Your task to perform on an android device: turn on javascript in the chrome app Image 0: 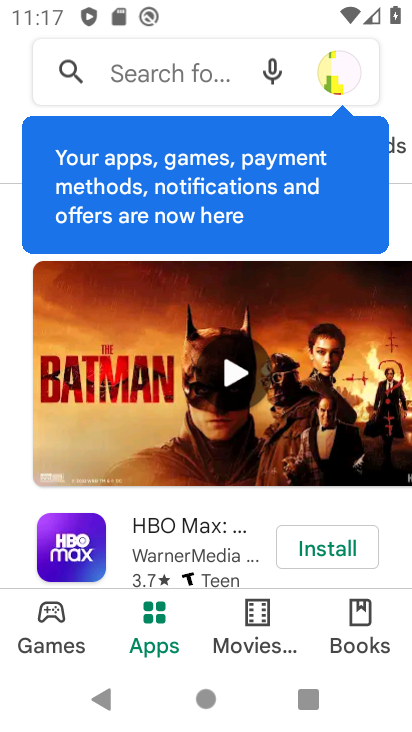
Step 0: press home button
Your task to perform on an android device: turn on javascript in the chrome app Image 1: 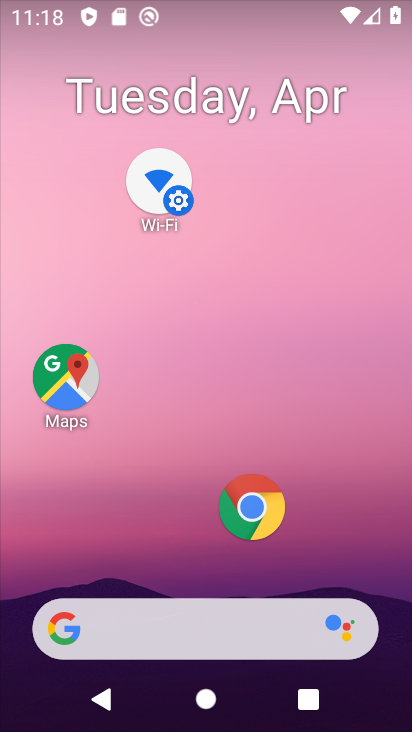
Step 1: click (238, 502)
Your task to perform on an android device: turn on javascript in the chrome app Image 2: 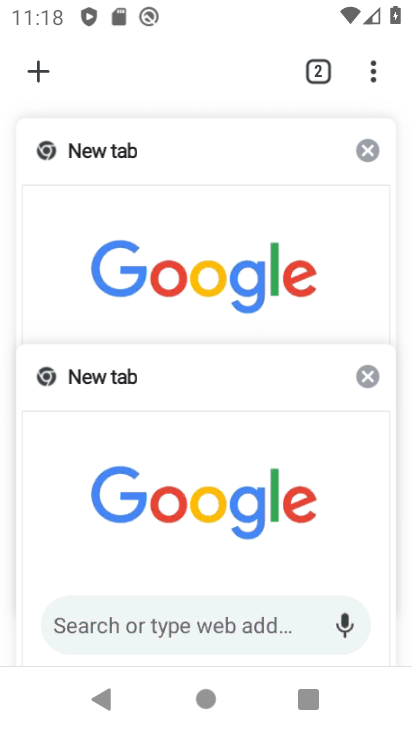
Step 2: click (371, 70)
Your task to perform on an android device: turn on javascript in the chrome app Image 3: 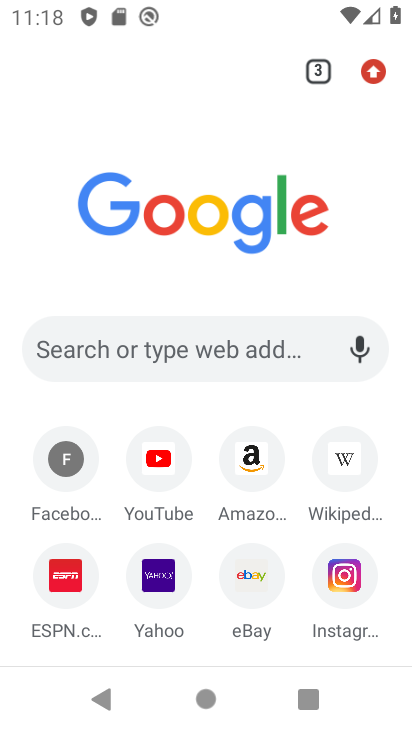
Step 3: click (370, 71)
Your task to perform on an android device: turn on javascript in the chrome app Image 4: 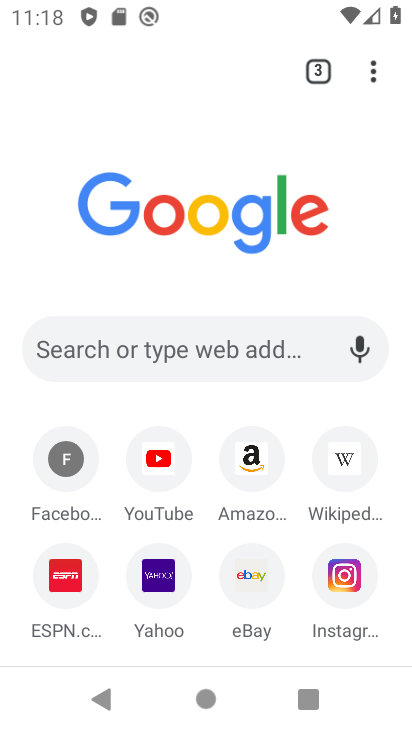
Step 4: click (313, 71)
Your task to perform on an android device: turn on javascript in the chrome app Image 5: 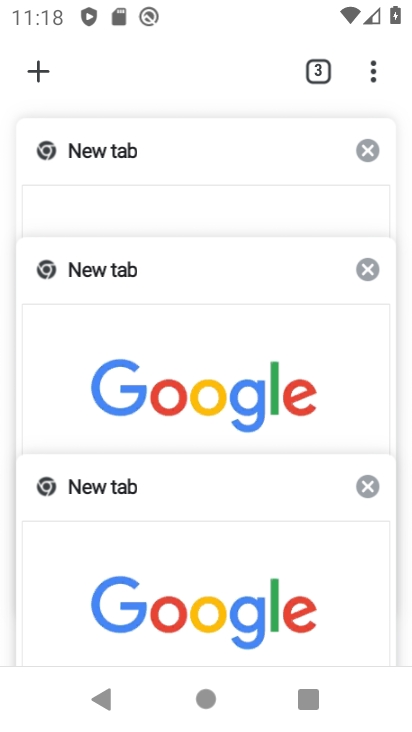
Step 5: click (360, 139)
Your task to perform on an android device: turn on javascript in the chrome app Image 6: 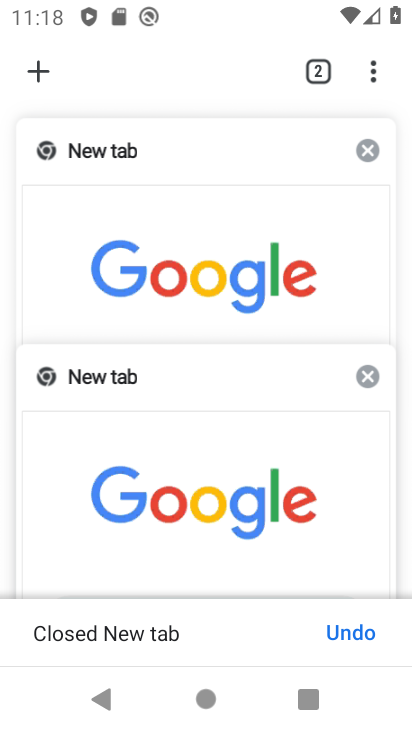
Step 6: click (364, 150)
Your task to perform on an android device: turn on javascript in the chrome app Image 7: 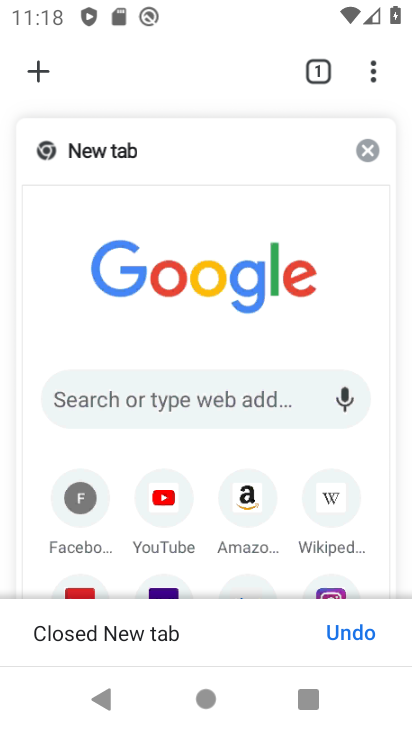
Step 7: click (366, 71)
Your task to perform on an android device: turn on javascript in the chrome app Image 8: 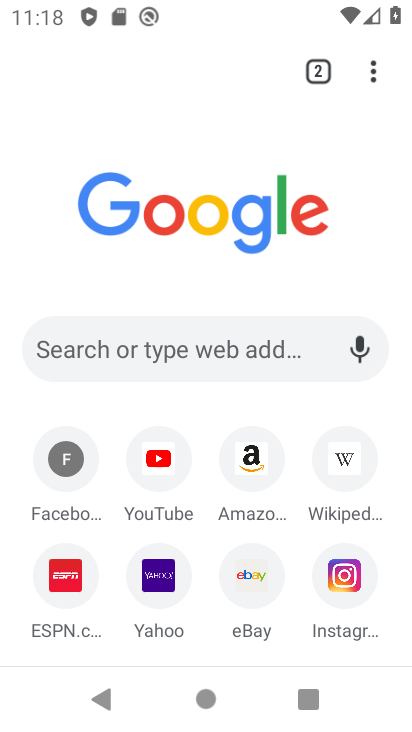
Step 8: click (317, 80)
Your task to perform on an android device: turn on javascript in the chrome app Image 9: 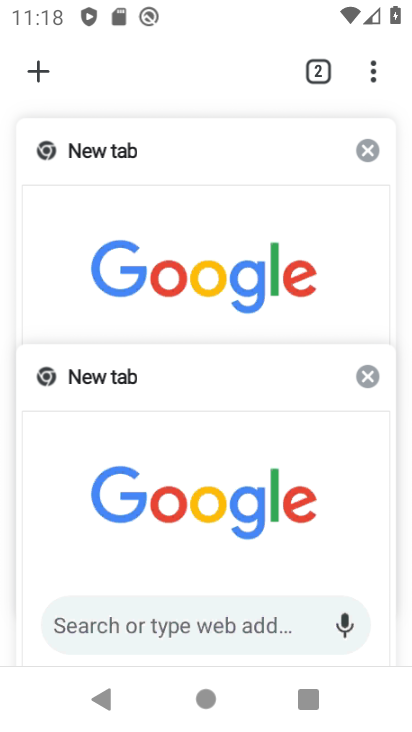
Step 9: click (373, 143)
Your task to perform on an android device: turn on javascript in the chrome app Image 10: 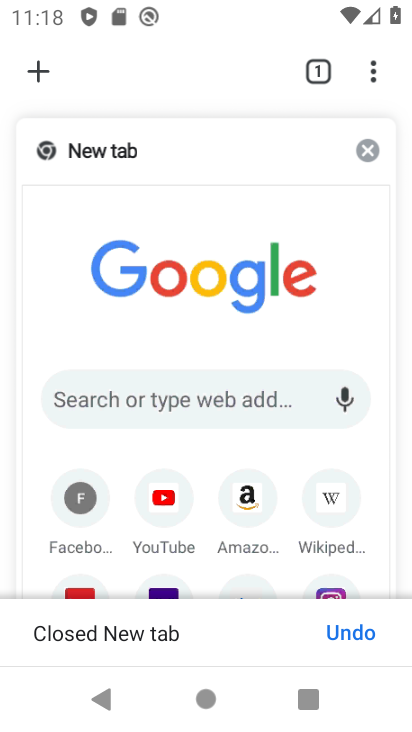
Step 10: click (373, 75)
Your task to perform on an android device: turn on javascript in the chrome app Image 11: 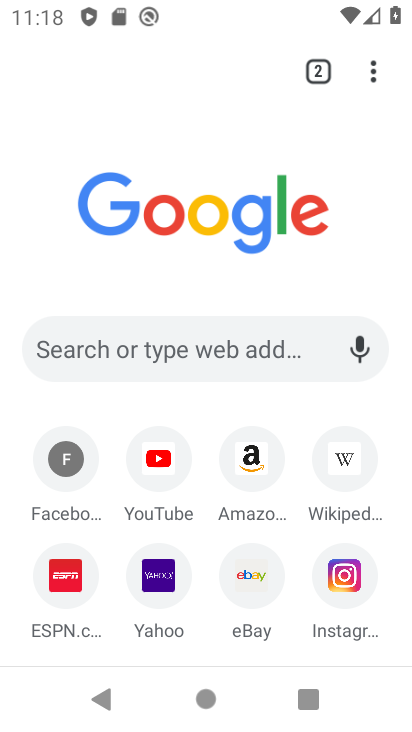
Step 11: click (324, 72)
Your task to perform on an android device: turn on javascript in the chrome app Image 12: 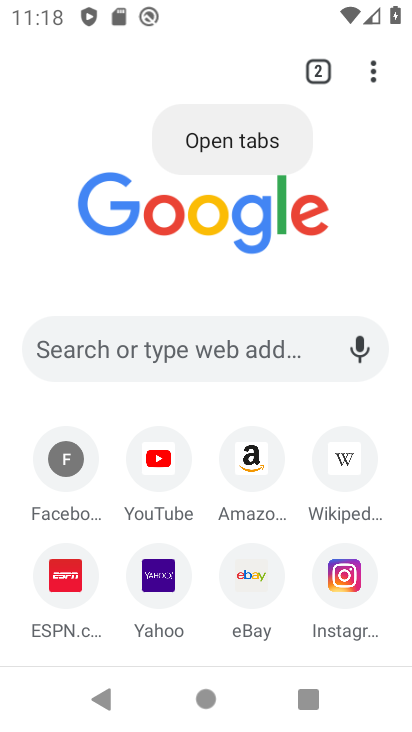
Step 12: click (323, 72)
Your task to perform on an android device: turn on javascript in the chrome app Image 13: 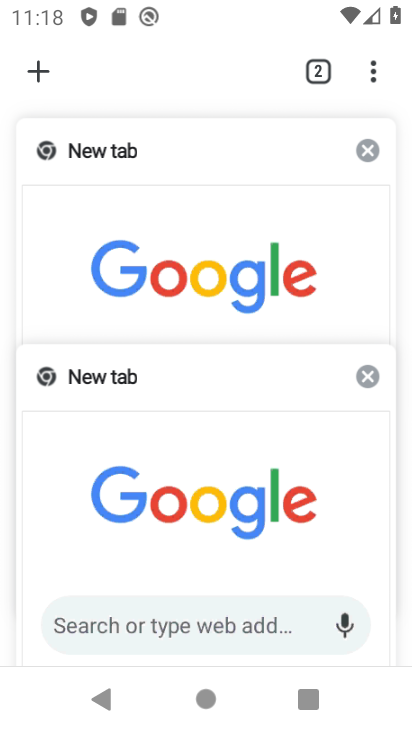
Step 13: click (372, 144)
Your task to perform on an android device: turn on javascript in the chrome app Image 14: 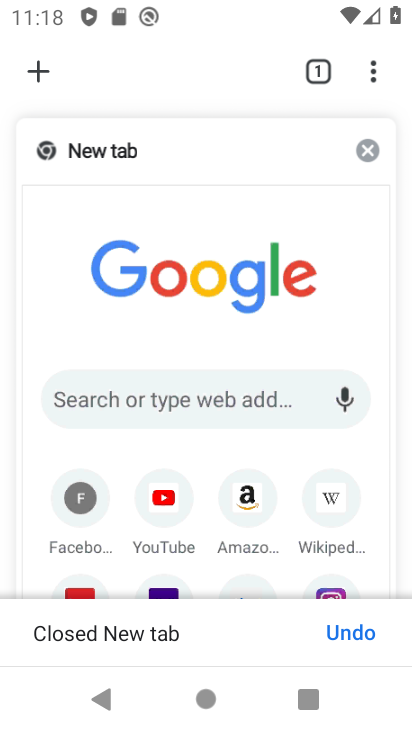
Step 14: click (364, 70)
Your task to perform on an android device: turn on javascript in the chrome app Image 15: 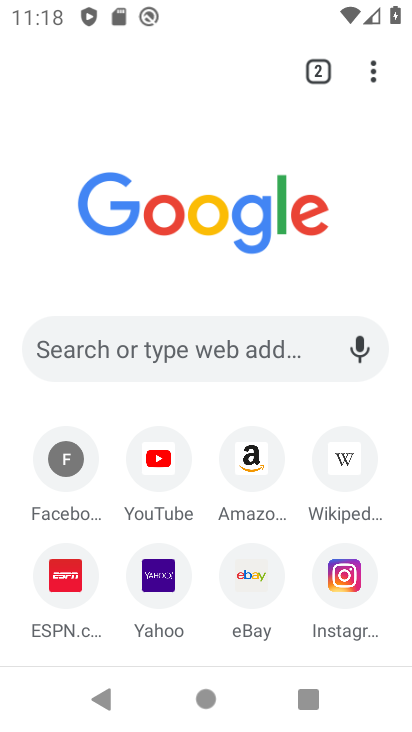
Step 15: click (325, 69)
Your task to perform on an android device: turn on javascript in the chrome app Image 16: 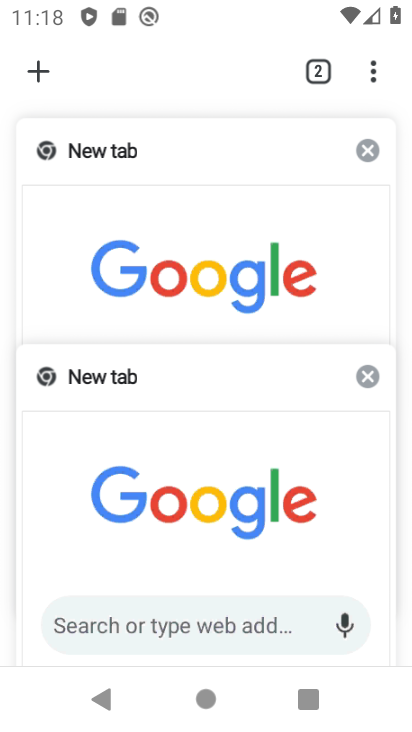
Step 16: click (371, 147)
Your task to perform on an android device: turn on javascript in the chrome app Image 17: 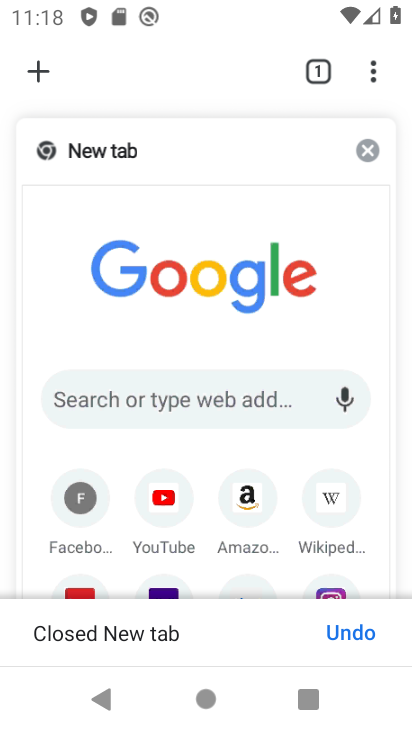
Step 17: click (373, 79)
Your task to perform on an android device: turn on javascript in the chrome app Image 18: 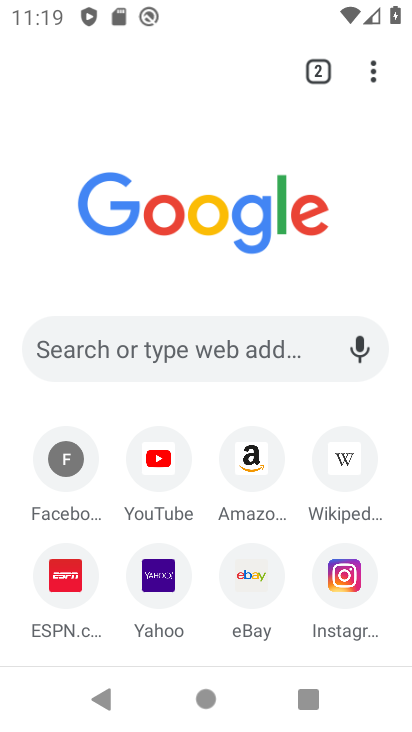
Step 18: click (309, 87)
Your task to perform on an android device: turn on javascript in the chrome app Image 19: 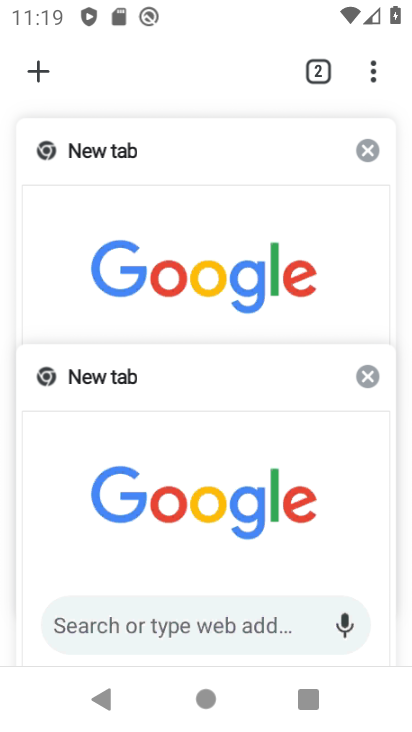
Step 19: click (362, 148)
Your task to perform on an android device: turn on javascript in the chrome app Image 20: 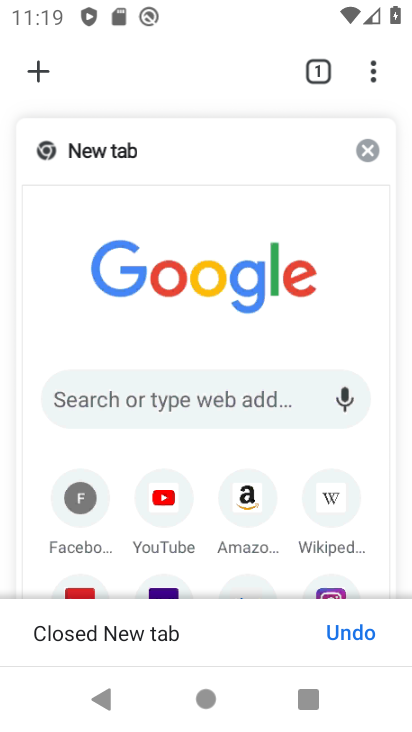
Step 20: click (378, 65)
Your task to perform on an android device: turn on javascript in the chrome app Image 21: 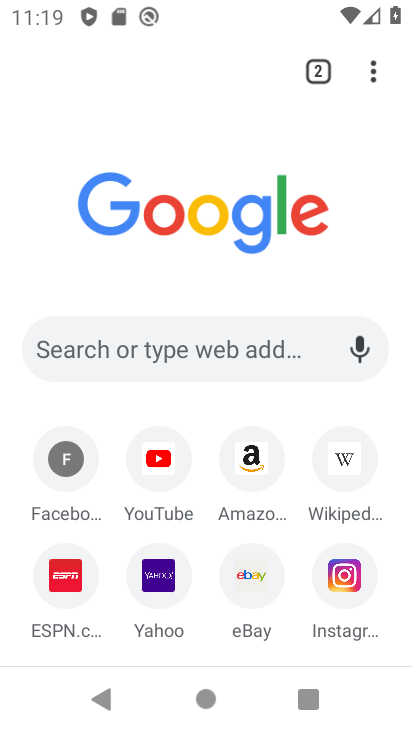
Step 21: click (372, 69)
Your task to perform on an android device: turn on javascript in the chrome app Image 22: 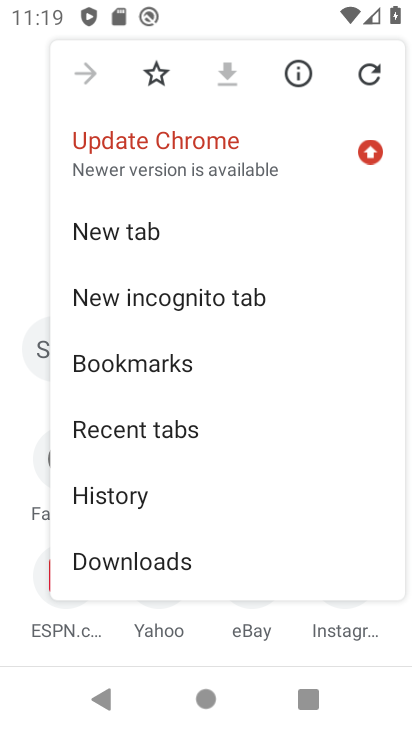
Step 22: drag from (120, 509) to (241, 169)
Your task to perform on an android device: turn on javascript in the chrome app Image 23: 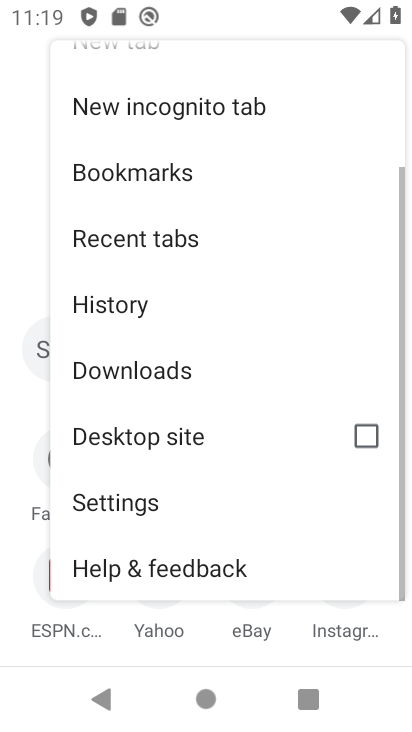
Step 23: click (159, 501)
Your task to perform on an android device: turn on javascript in the chrome app Image 24: 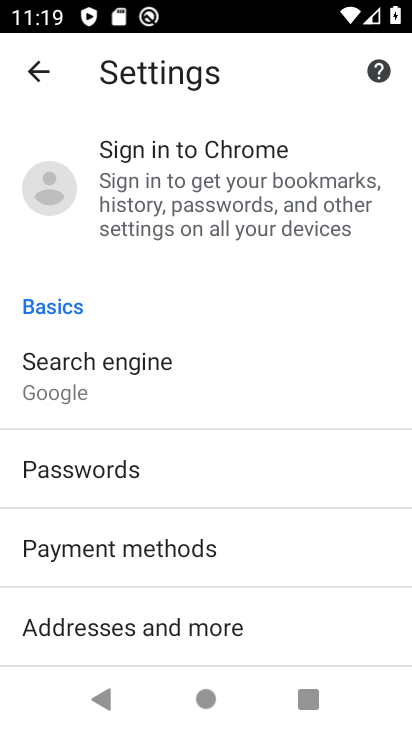
Step 24: drag from (136, 586) to (184, 299)
Your task to perform on an android device: turn on javascript in the chrome app Image 25: 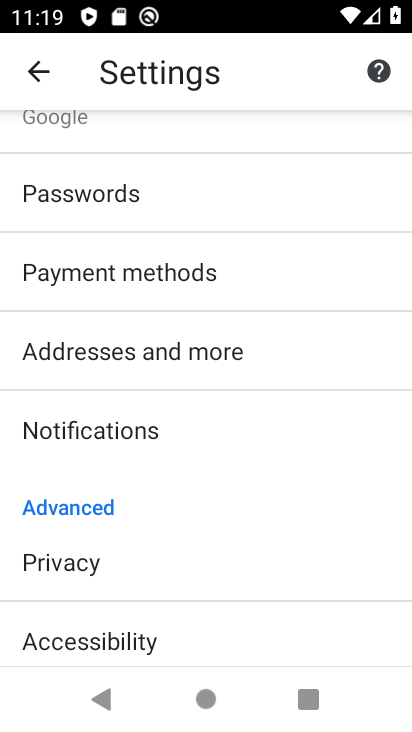
Step 25: drag from (234, 622) to (305, 302)
Your task to perform on an android device: turn on javascript in the chrome app Image 26: 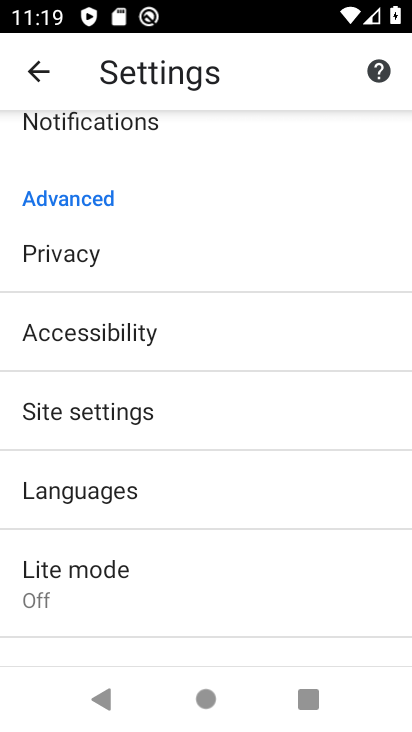
Step 26: click (147, 404)
Your task to perform on an android device: turn on javascript in the chrome app Image 27: 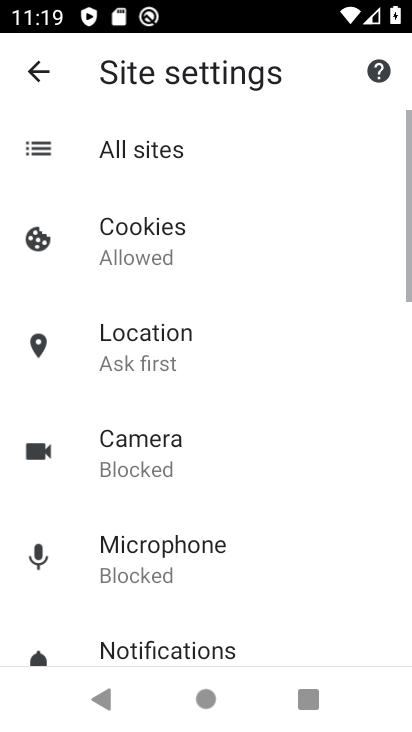
Step 27: drag from (130, 594) to (235, 280)
Your task to perform on an android device: turn on javascript in the chrome app Image 28: 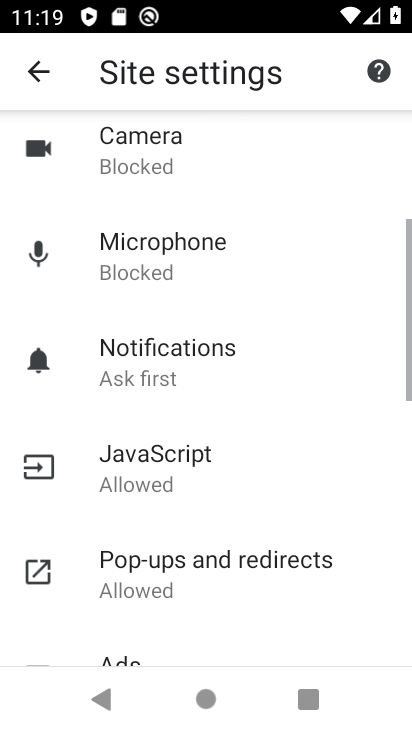
Step 28: click (173, 450)
Your task to perform on an android device: turn on javascript in the chrome app Image 29: 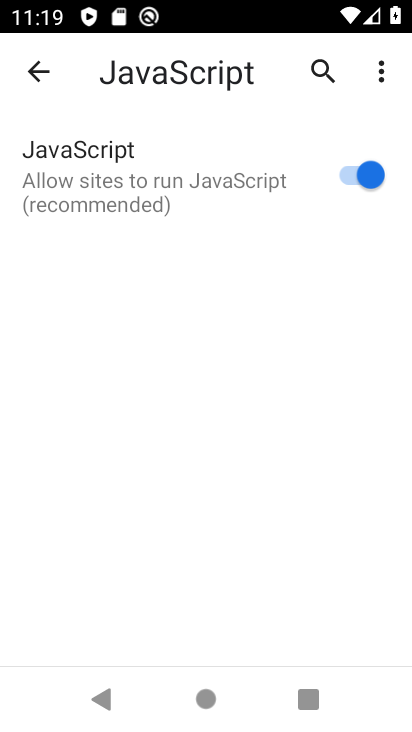
Step 29: task complete